Your task to perform on an android device: turn off airplane mode Image 0: 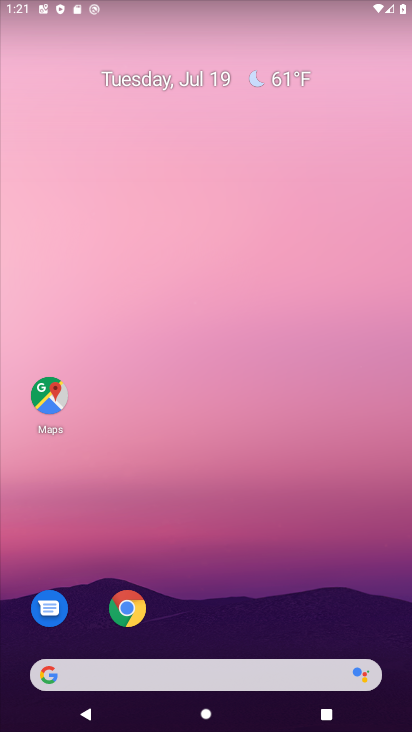
Step 0: drag from (209, 636) to (256, 116)
Your task to perform on an android device: turn off airplane mode Image 1: 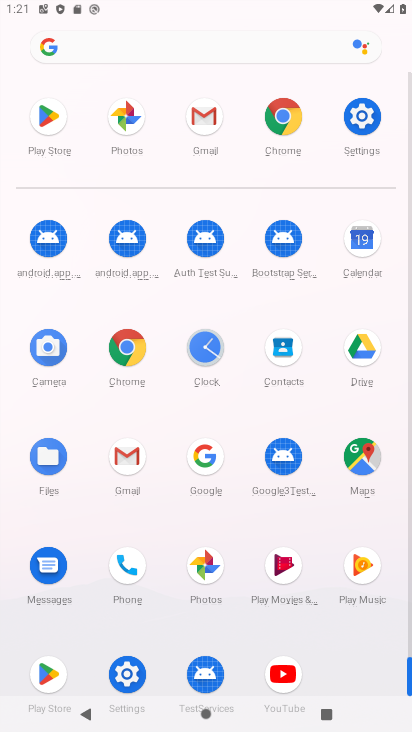
Step 1: click (354, 113)
Your task to perform on an android device: turn off airplane mode Image 2: 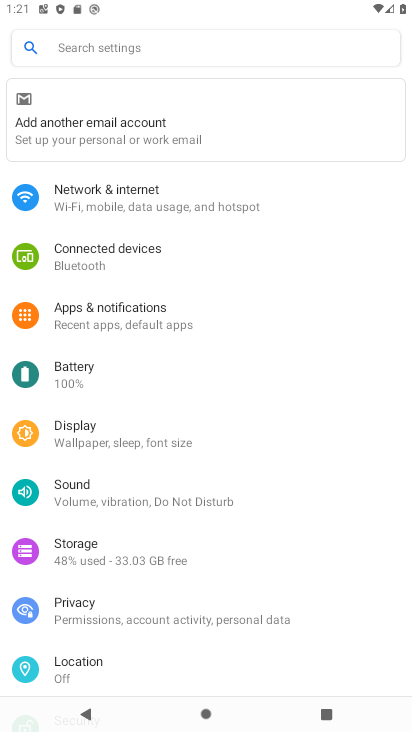
Step 2: click (120, 195)
Your task to perform on an android device: turn off airplane mode Image 3: 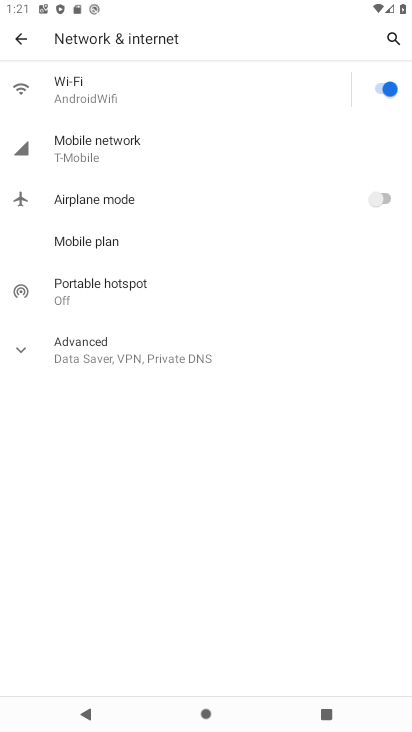
Step 3: task complete